Your task to perform on an android device: star an email in the gmail app Image 0: 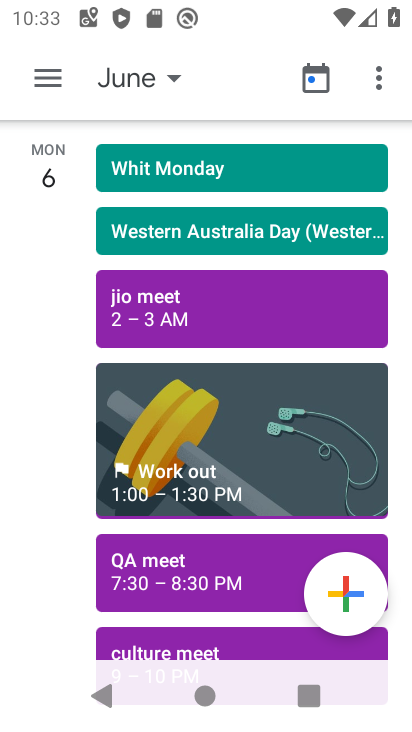
Step 0: press home button
Your task to perform on an android device: star an email in the gmail app Image 1: 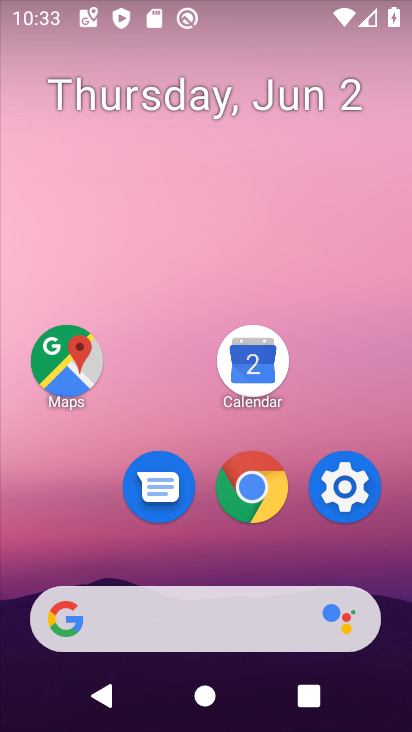
Step 1: drag from (265, 637) to (204, 280)
Your task to perform on an android device: star an email in the gmail app Image 2: 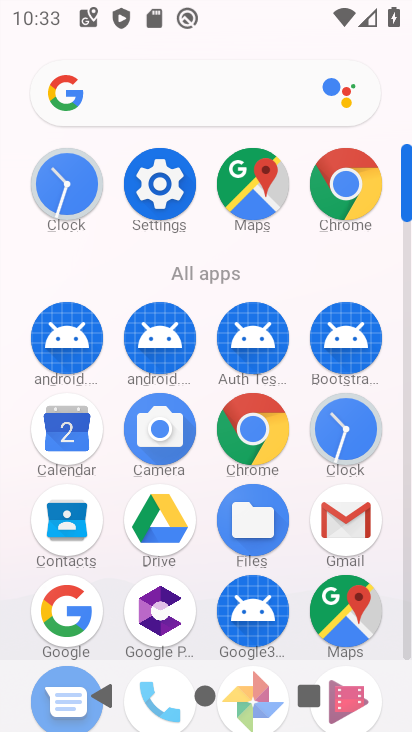
Step 2: click (350, 508)
Your task to perform on an android device: star an email in the gmail app Image 3: 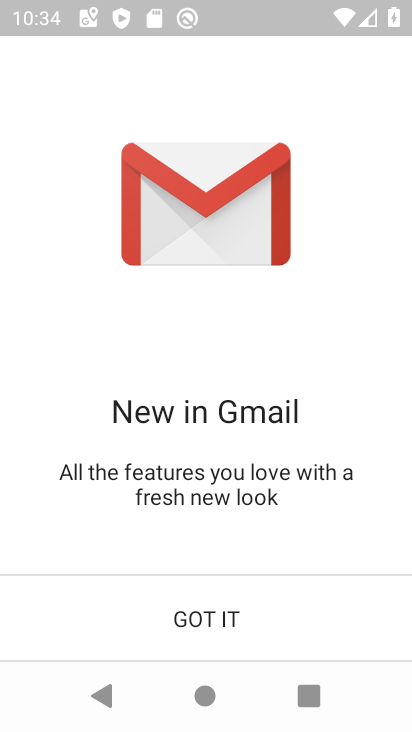
Step 3: click (245, 612)
Your task to perform on an android device: star an email in the gmail app Image 4: 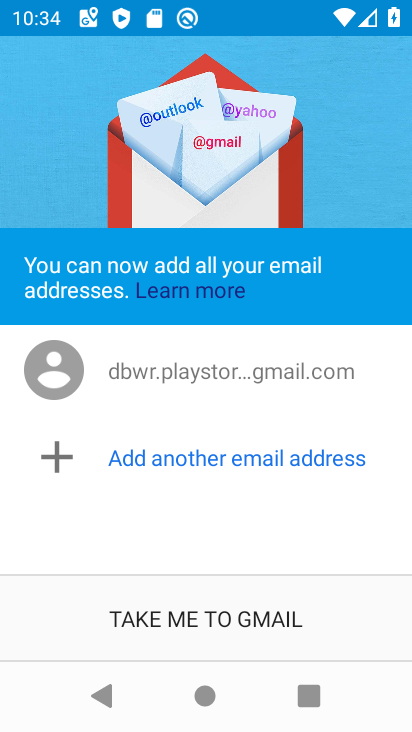
Step 4: click (151, 611)
Your task to perform on an android device: star an email in the gmail app Image 5: 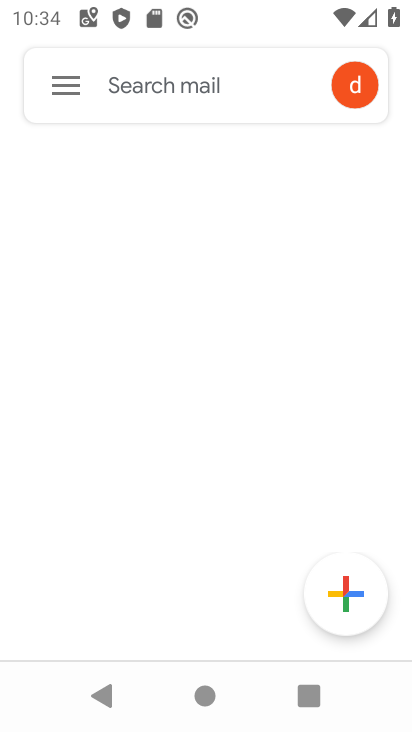
Step 5: click (58, 79)
Your task to perform on an android device: star an email in the gmail app Image 6: 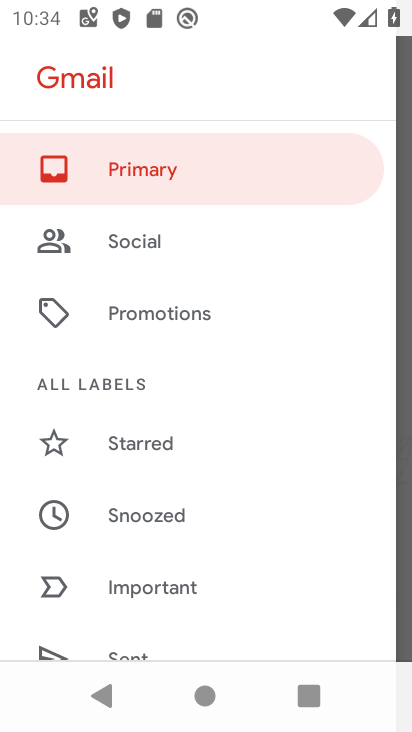
Step 6: drag from (140, 599) to (173, 532)
Your task to perform on an android device: star an email in the gmail app Image 7: 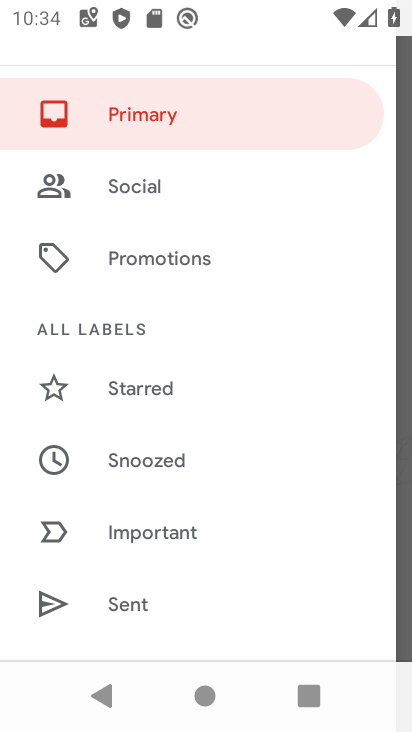
Step 7: click (134, 389)
Your task to perform on an android device: star an email in the gmail app Image 8: 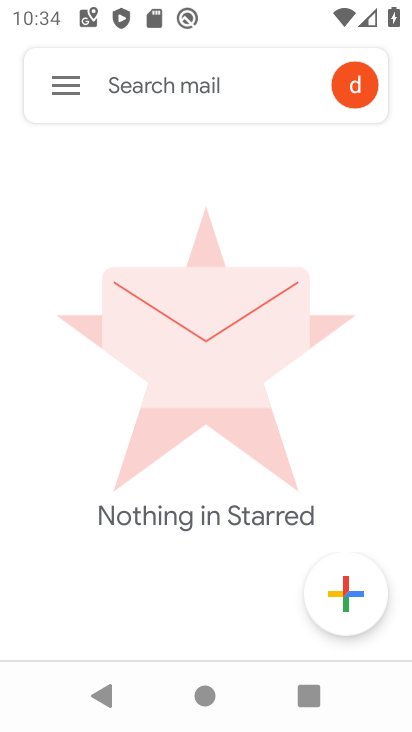
Step 8: task complete